Your task to perform on an android device: Go to calendar. Show me events next week Image 0: 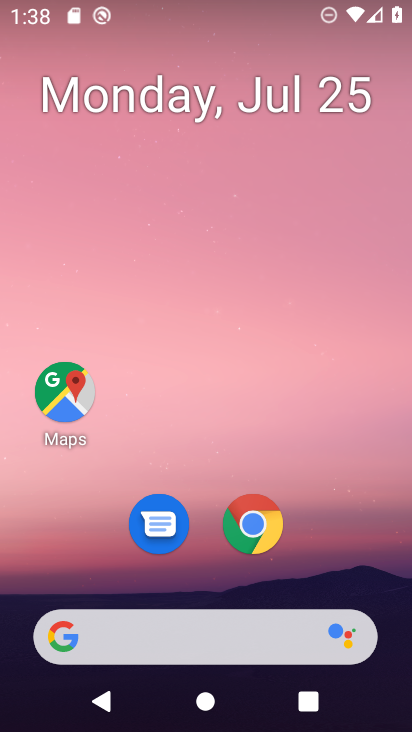
Step 0: press home button
Your task to perform on an android device: Go to calendar. Show me events next week Image 1: 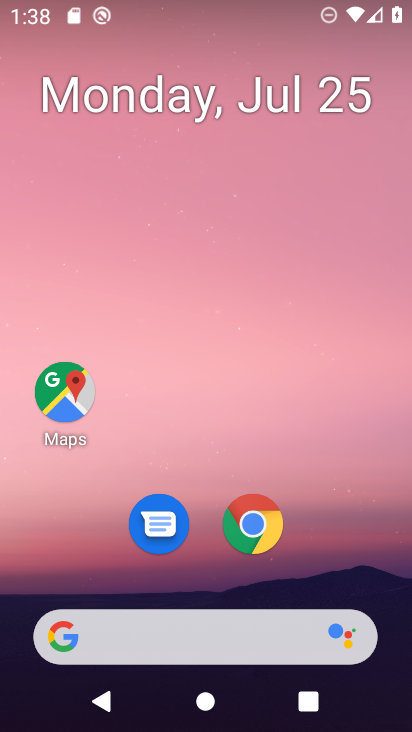
Step 1: drag from (223, 621) to (320, 30)
Your task to perform on an android device: Go to calendar. Show me events next week Image 2: 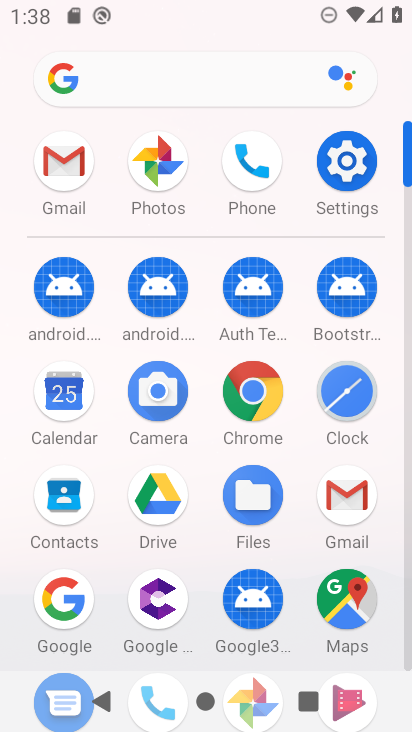
Step 2: click (63, 386)
Your task to perform on an android device: Go to calendar. Show me events next week Image 3: 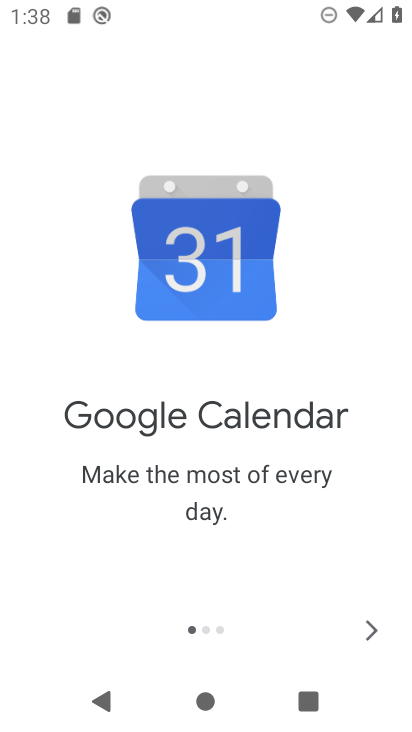
Step 3: click (374, 623)
Your task to perform on an android device: Go to calendar. Show me events next week Image 4: 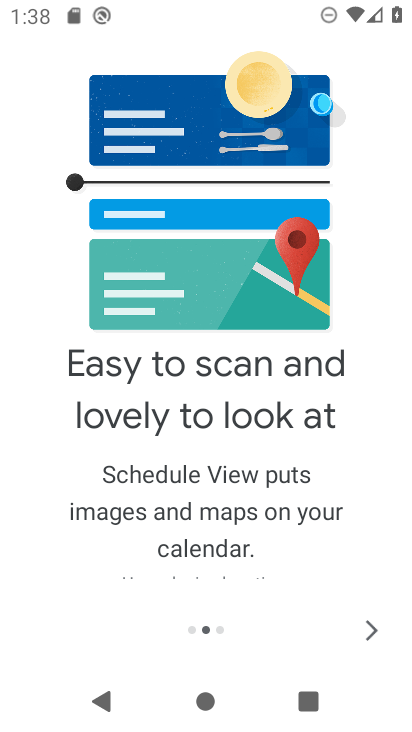
Step 4: click (366, 630)
Your task to perform on an android device: Go to calendar. Show me events next week Image 5: 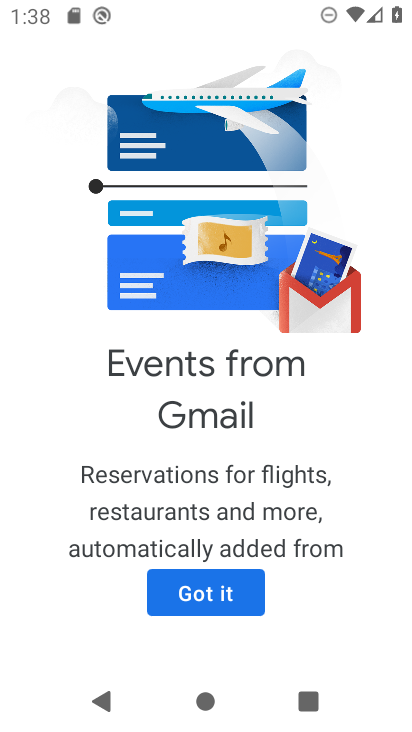
Step 5: click (224, 589)
Your task to perform on an android device: Go to calendar. Show me events next week Image 6: 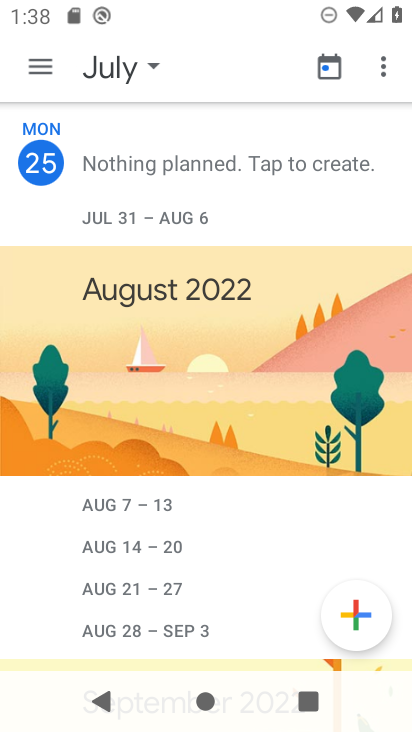
Step 6: click (109, 63)
Your task to perform on an android device: Go to calendar. Show me events next week Image 7: 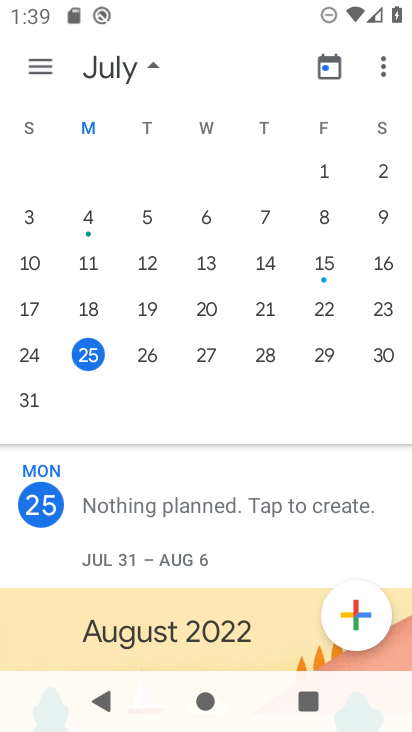
Step 7: click (29, 401)
Your task to perform on an android device: Go to calendar. Show me events next week Image 8: 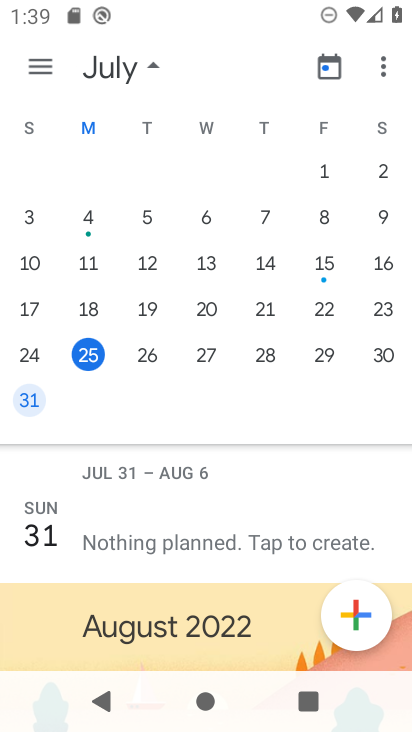
Step 8: click (42, 57)
Your task to perform on an android device: Go to calendar. Show me events next week Image 9: 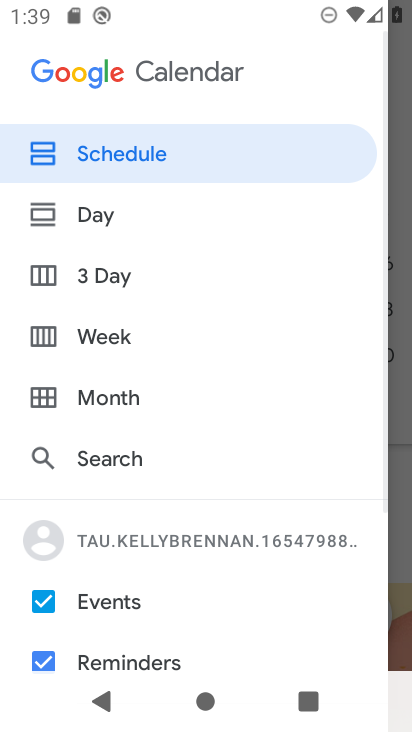
Step 9: click (117, 336)
Your task to perform on an android device: Go to calendar. Show me events next week Image 10: 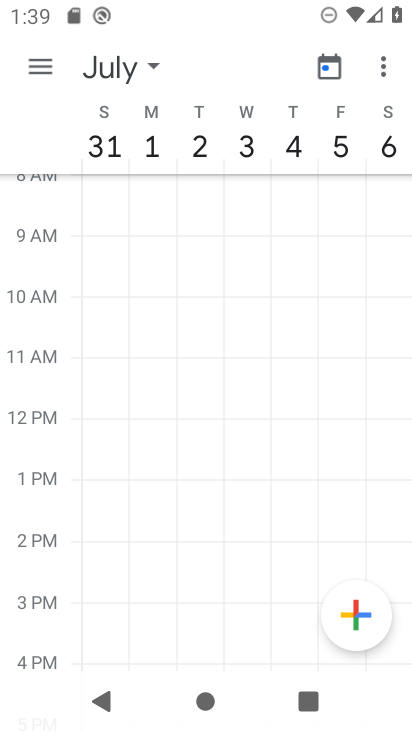
Step 10: click (44, 60)
Your task to perform on an android device: Go to calendar. Show me events next week Image 11: 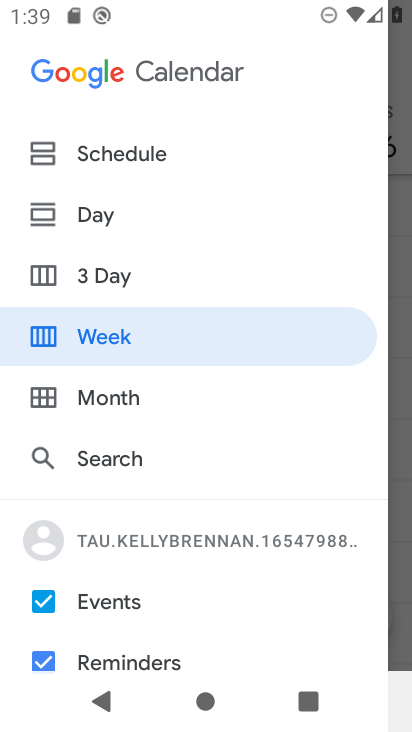
Step 11: click (122, 152)
Your task to perform on an android device: Go to calendar. Show me events next week Image 12: 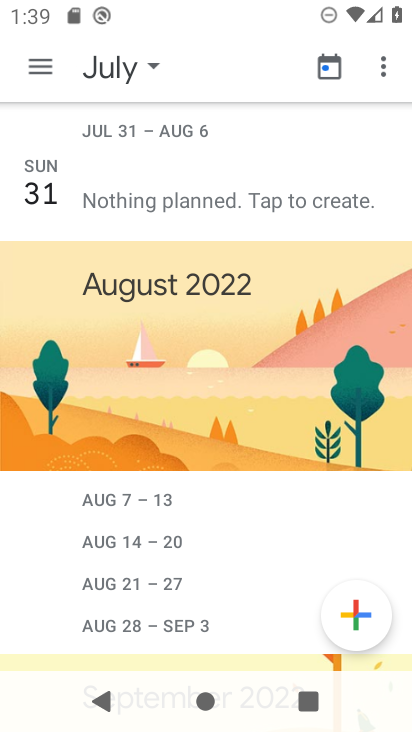
Step 12: task complete